Your task to perform on an android device: add a label to a message in the gmail app Image 0: 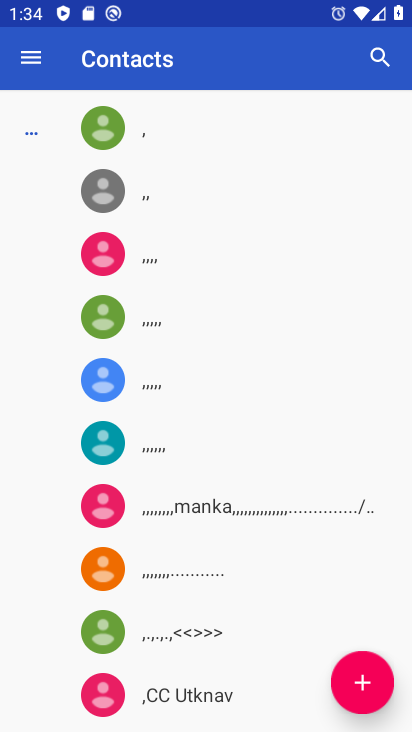
Step 0: press home button
Your task to perform on an android device: add a label to a message in the gmail app Image 1: 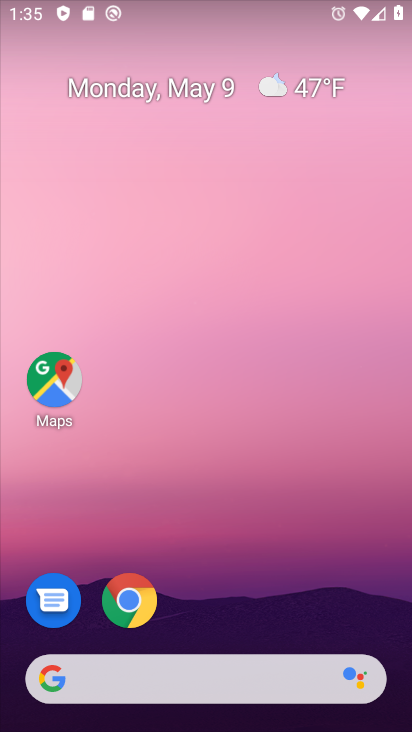
Step 1: drag from (203, 669) to (234, 239)
Your task to perform on an android device: add a label to a message in the gmail app Image 2: 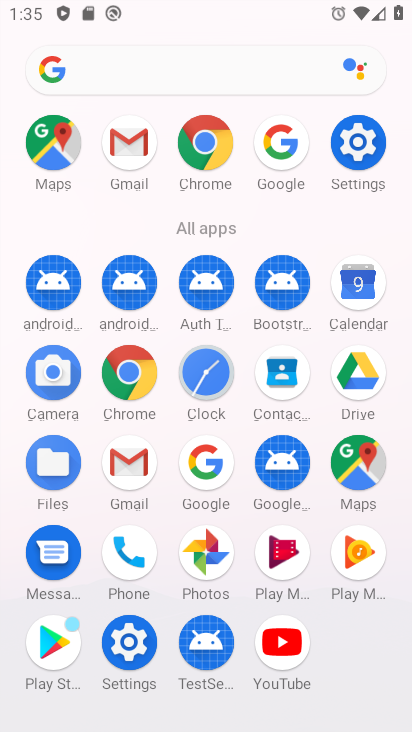
Step 2: click (129, 157)
Your task to perform on an android device: add a label to a message in the gmail app Image 3: 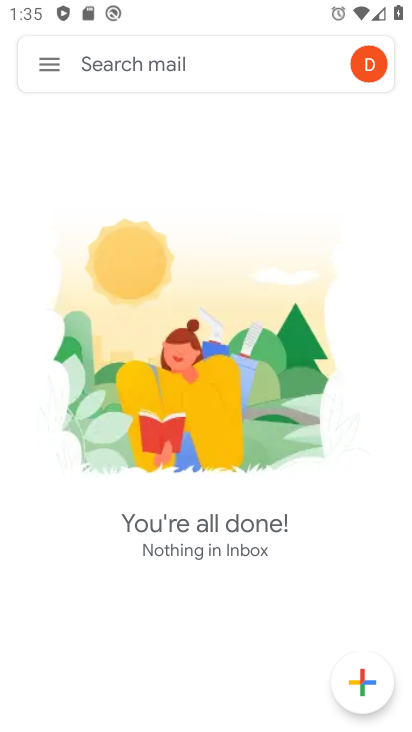
Step 3: task complete